Your task to perform on an android device: toggle notification dots Image 0: 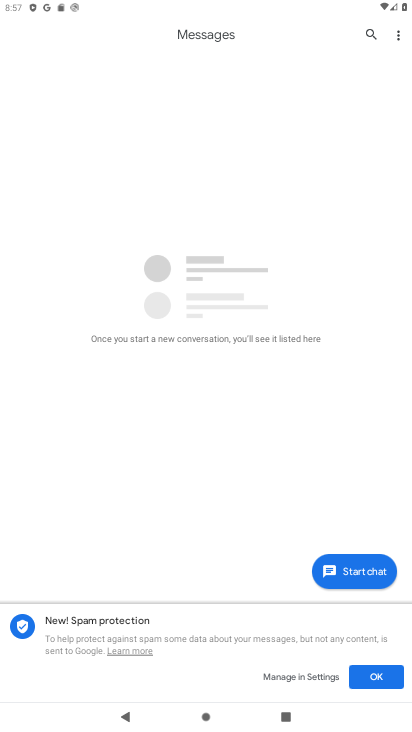
Step 0: press home button
Your task to perform on an android device: toggle notification dots Image 1: 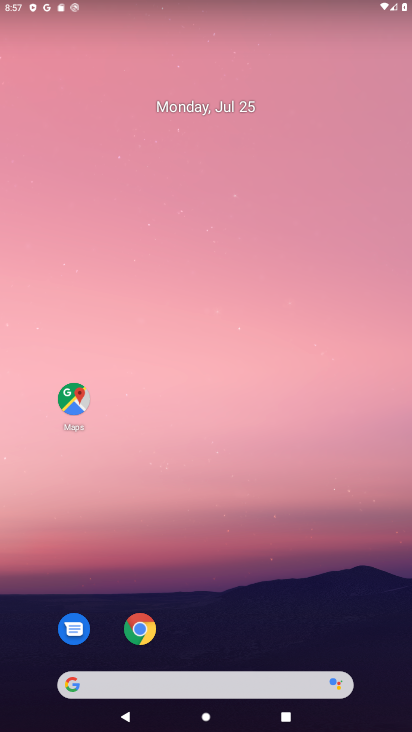
Step 1: drag from (233, 636) to (322, 0)
Your task to perform on an android device: toggle notification dots Image 2: 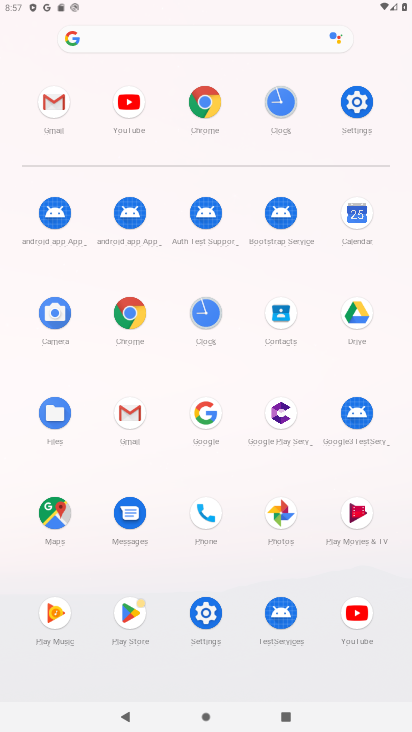
Step 2: click (367, 97)
Your task to perform on an android device: toggle notification dots Image 3: 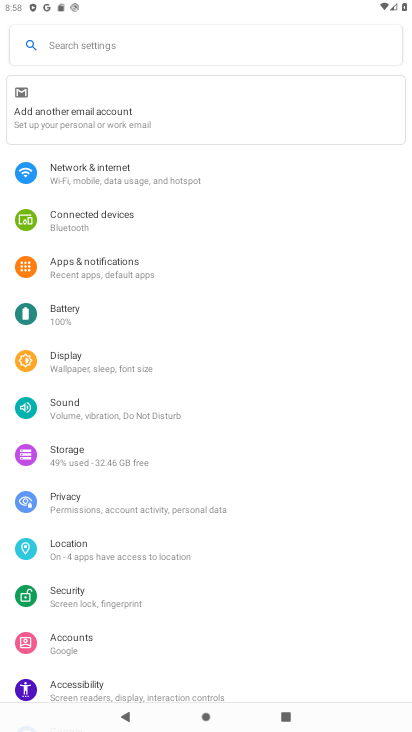
Step 3: click (112, 255)
Your task to perform on an android device: toggle notification dots Image 4: 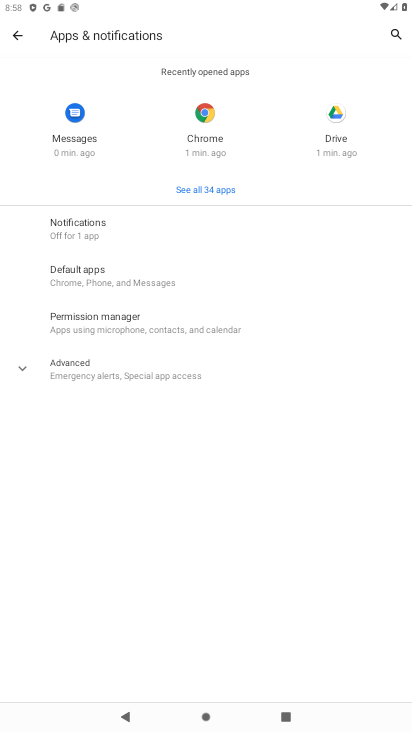
Step 4: click (124, 221)
Your task to perform on an android device: toggle notification dots Image 5: 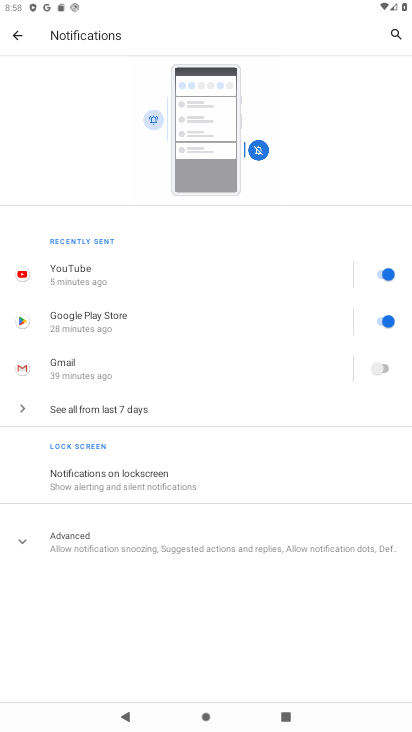
Step 5: click (70, 547)
Your task to perform on an android device: toggle notification dots Image 6: 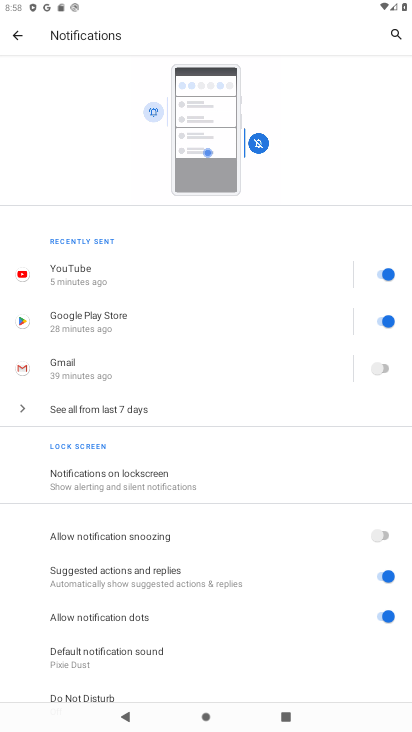
Step 6: click (384, 613)
Your task to perform on an android device: toggle notification dots Image 7: 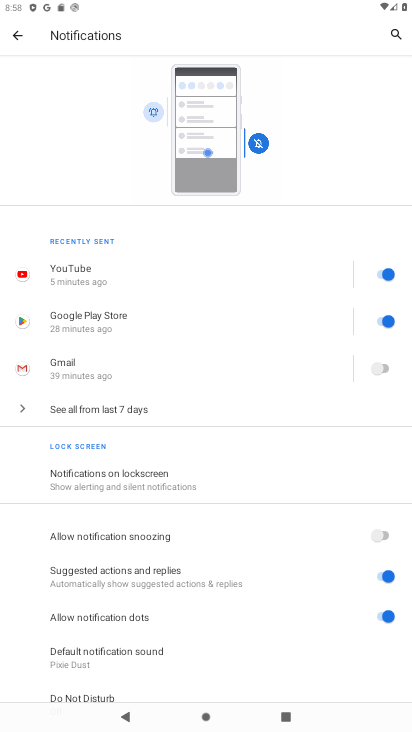
Step 7: click (384, 613)
Your task to perform on an android device: toggle notification dots Image 8: 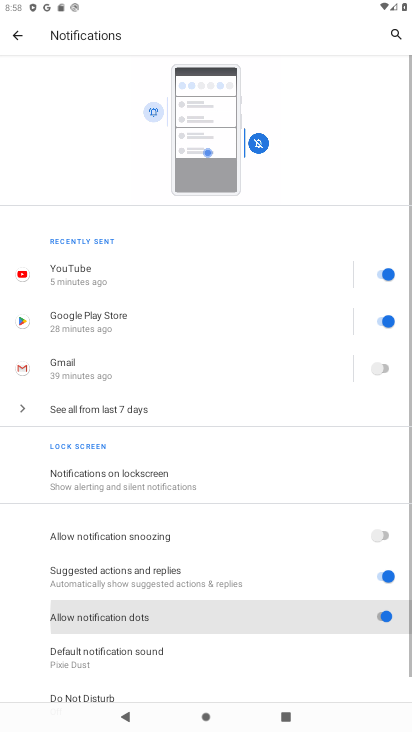
Step 8: click (384, 613)
Your task to perform on an android device: toggle notification dots Image 9: 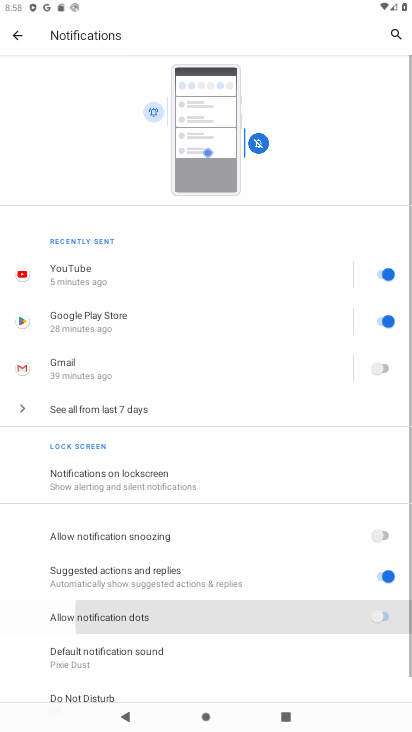
Step 9: click (384, 613)
Your task to perform on an android device: toggle notification dots Image 10: 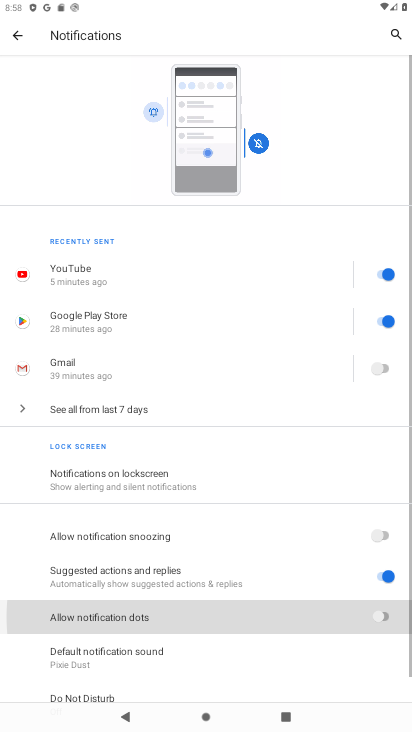
Step 10: click (384, 613)
Your task to perform on an android device: toggle notification dots Image 11: 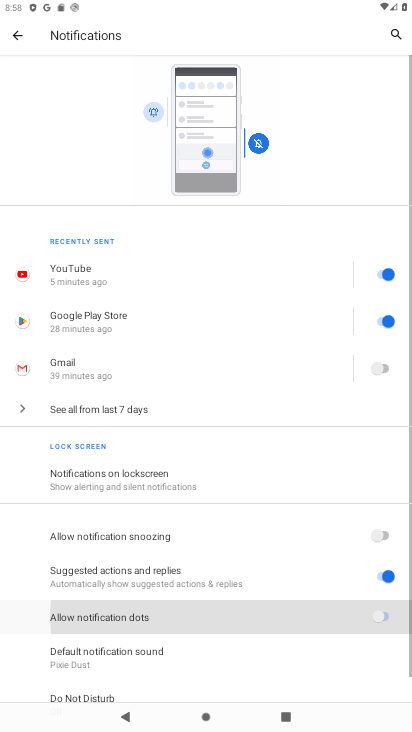
Step 11: click (384, 613)
Your task to perform on an android device: toggle notification dots Image 12: 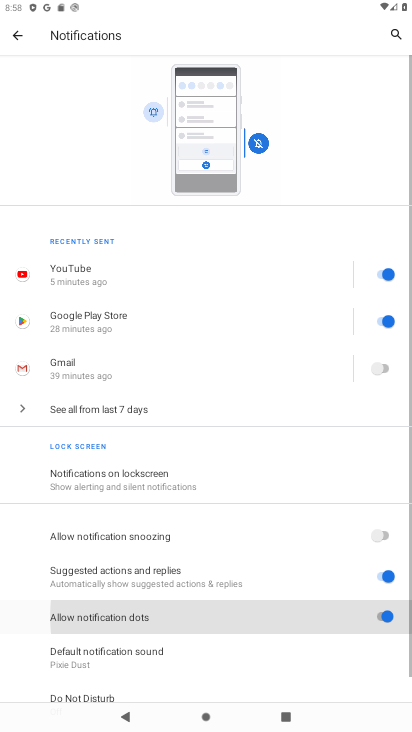
Step 12: click (384, 613)
Your task to perform on an android device: toggle notification dots Image 13: 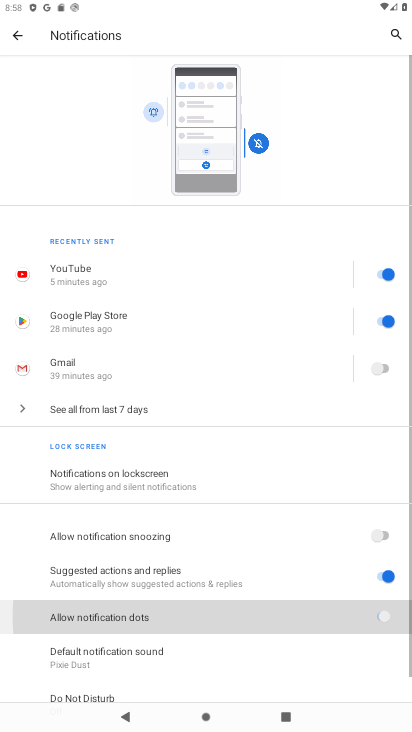
Step 13: click (384, 613)
Your task to perform on an android device: toggle notification dots Image 14: 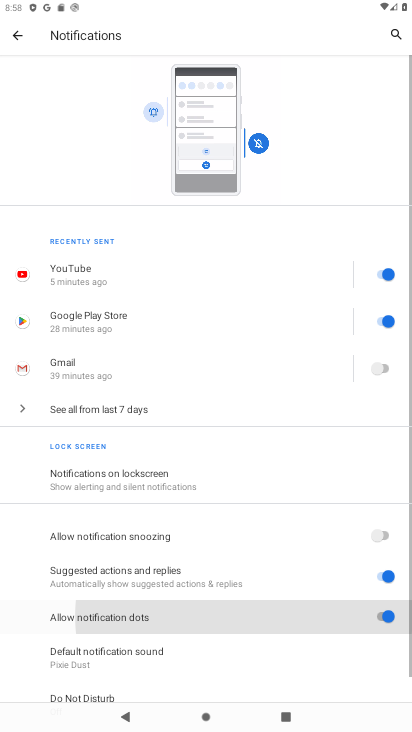
Step 14: click (384, 613)
Your task to perform on an android device: toggle notification dots Image 15: 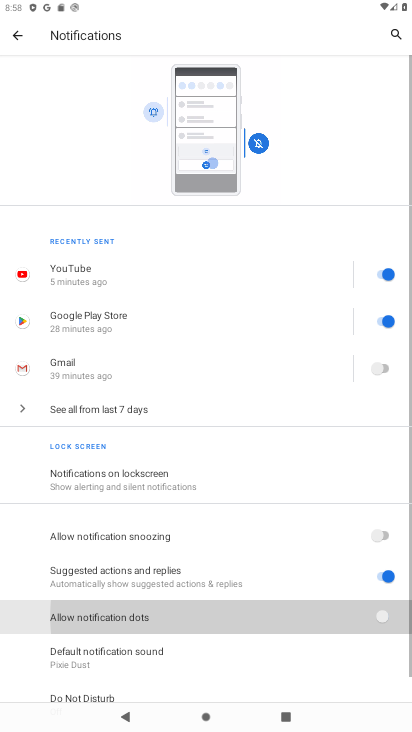
Step 15: click (384, 613)
Your task to perform on an android device: toggle notification dots Image 16: 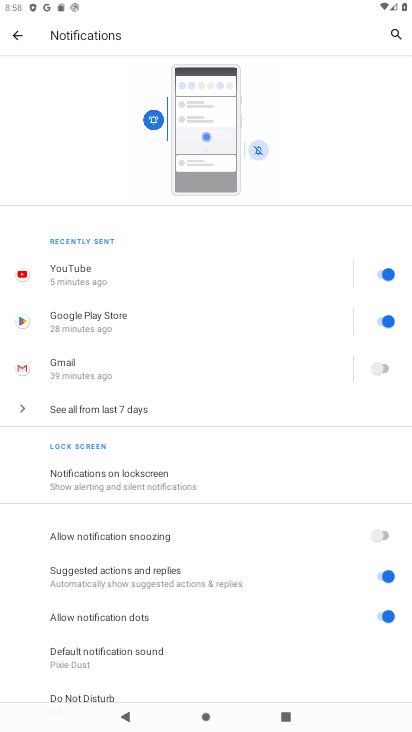
Step 16: task complete